Your task to perform on an android device: What's the weather today? Image 0: 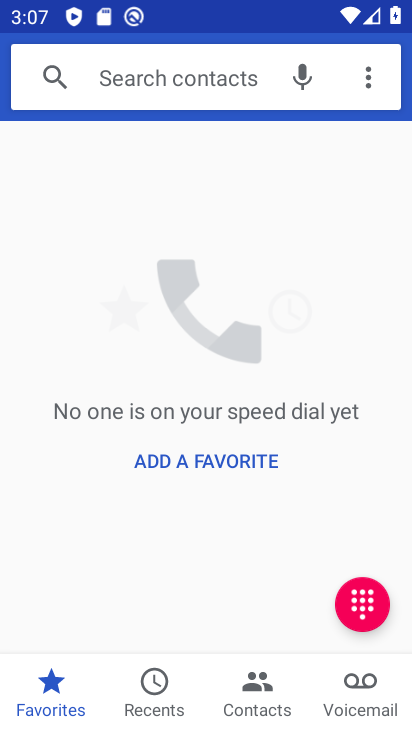
Step 0: press home button
Your task to perform on an android device: What's the weather today? Image 1: 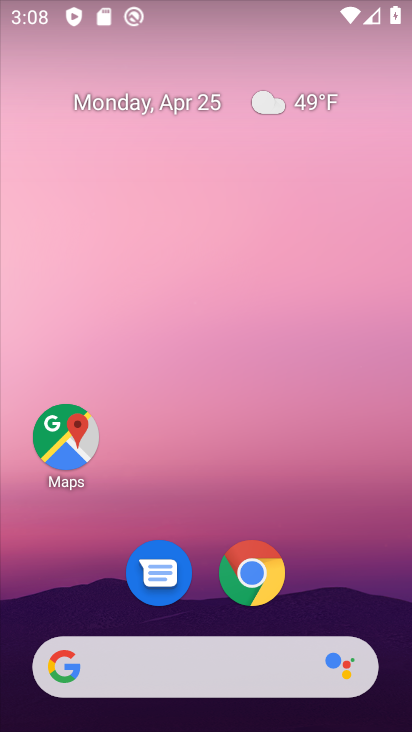
Step 1: click (304, 109)
Your task to perform on an android device: What's the weather today? Image 2: 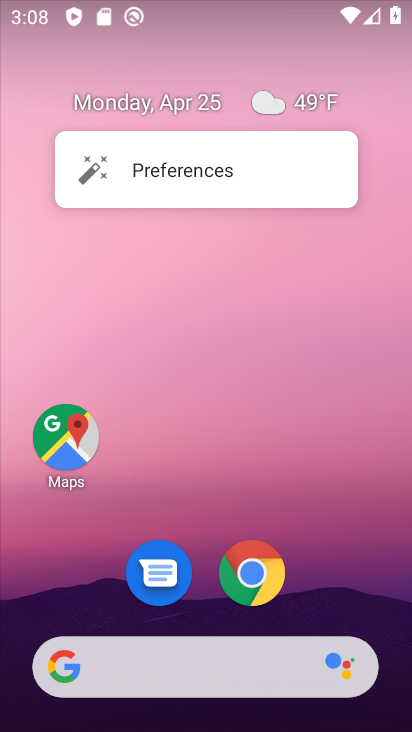
Step 2: click (278, 106)
Your task to perform on an android device: What's the weather today? Image 3: 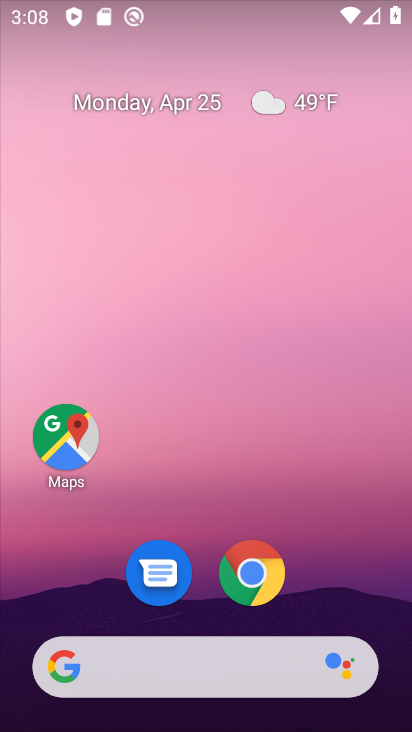
Step 3: click (309, 103)
Your task to perform on an android device: What's the weather today? Image 4: 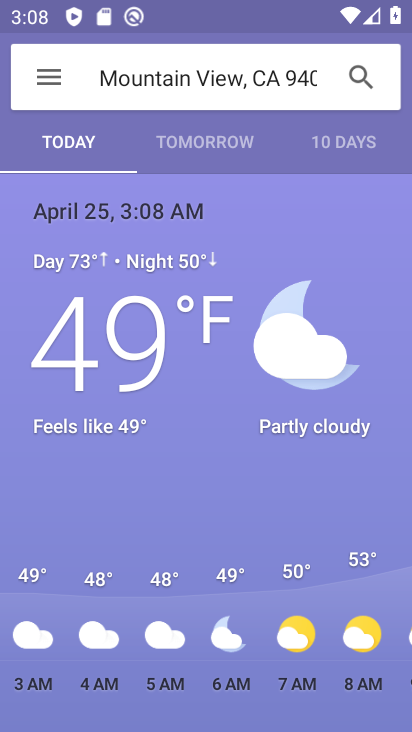
Step 4: task complete